Your task to perform on an android device: Go to eBay Image 0: 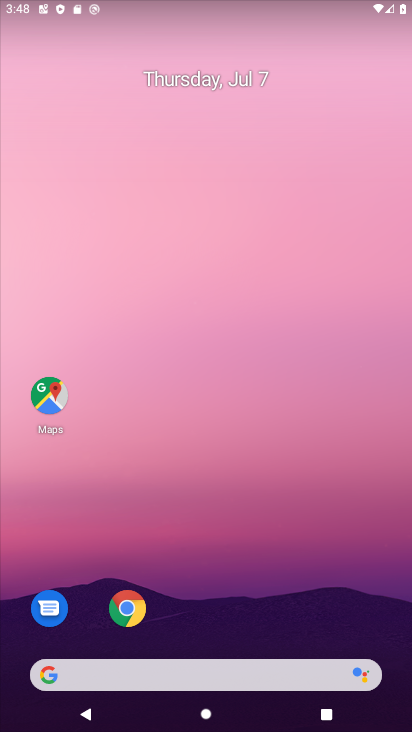
Step 0: click (140, 605)
Your task to perform on an android device: Go to eBay Image 1: 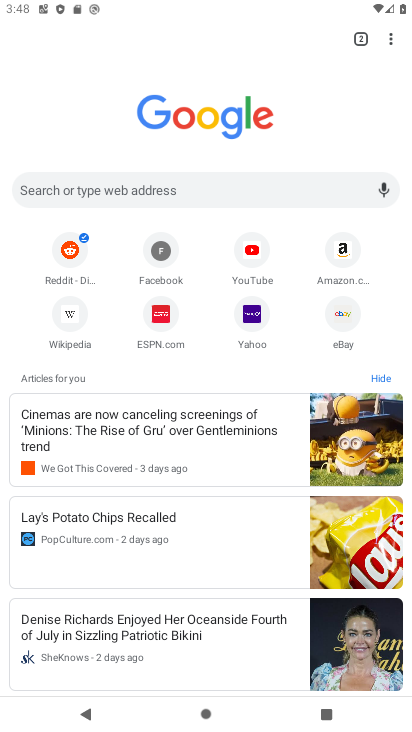
Step 1: click (345, 323)
Your task to perform on an android device: Go to eBay Image 2: 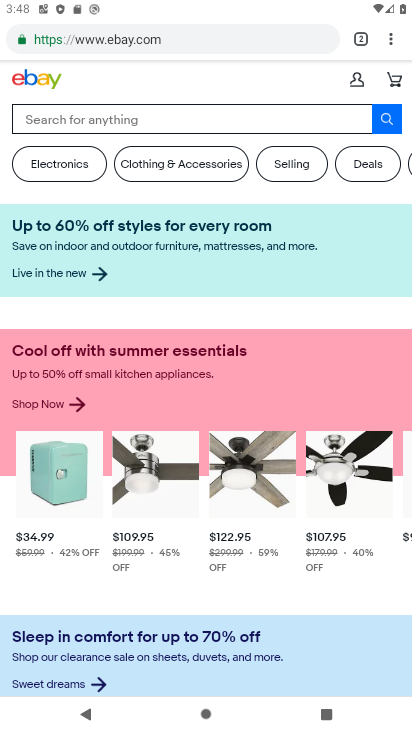
Step 2: task complete